Your task to perform on an android device: all mails in gmail Image 0: 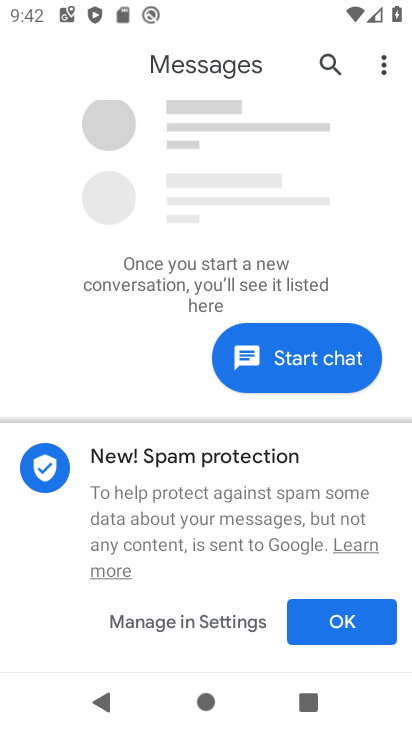
Step 0: press home button
Your task to perform on an android device: all mails in gmail Image 1: 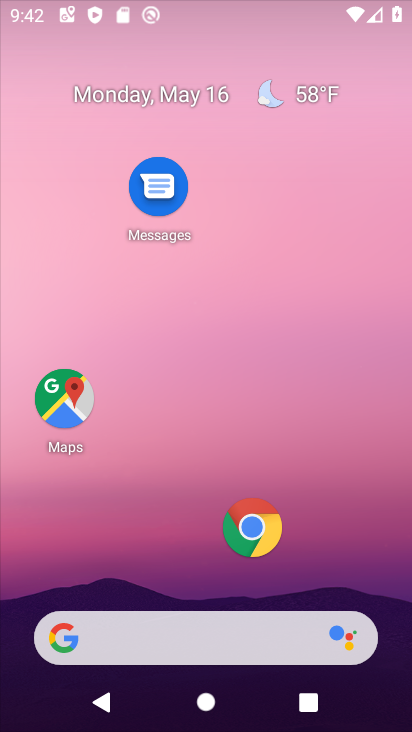
Step 1: drag from (170, 523) to (209, 152)
Your task to perform on an android device: all mails in gmail Image 2: 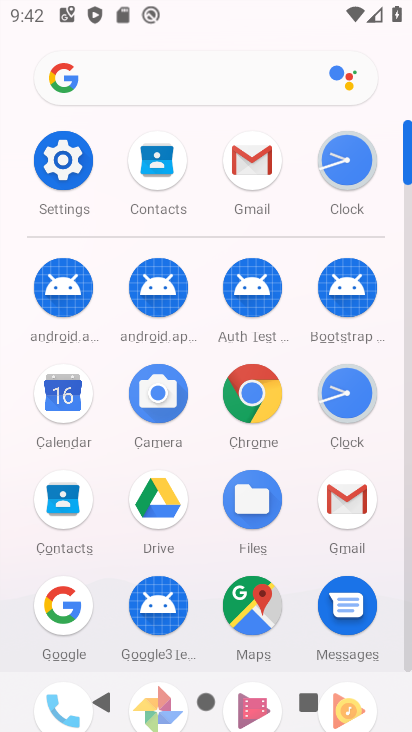
Step 2: click (255, 166)
Your task to perform on an android device: all mails in gmail Image 3: 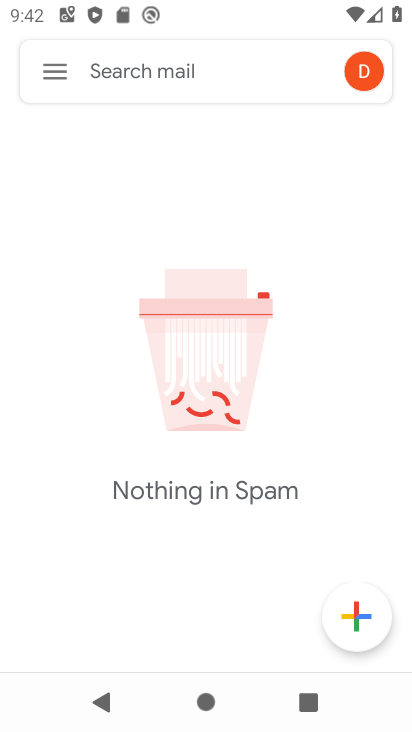
Step 3: click (59, 83)
Your task to perform on an android device: all mails in gmail Image 4: 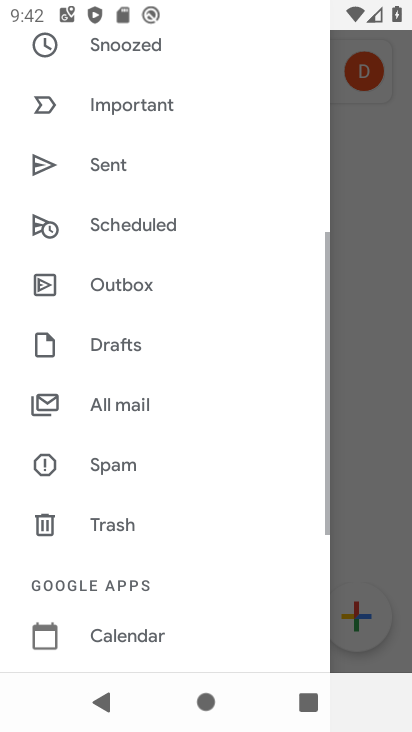
Step 4: click (126, 411)
Your task to perform on an android device: all mails in gmail Image 5: 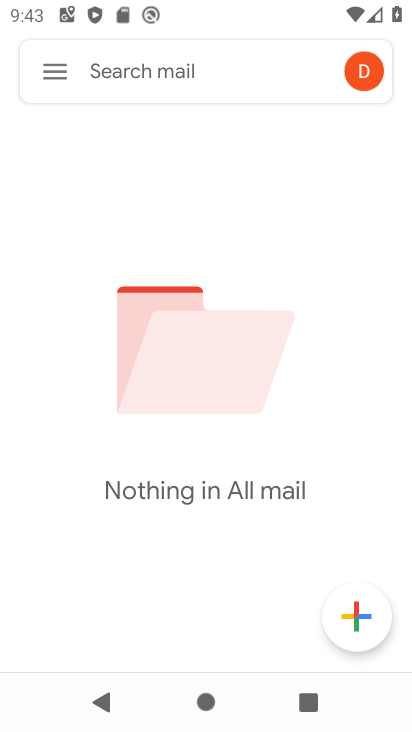
Step 5: task complete